Your task to perform on an android device: turn on the 24-hour format for clock Image 0: 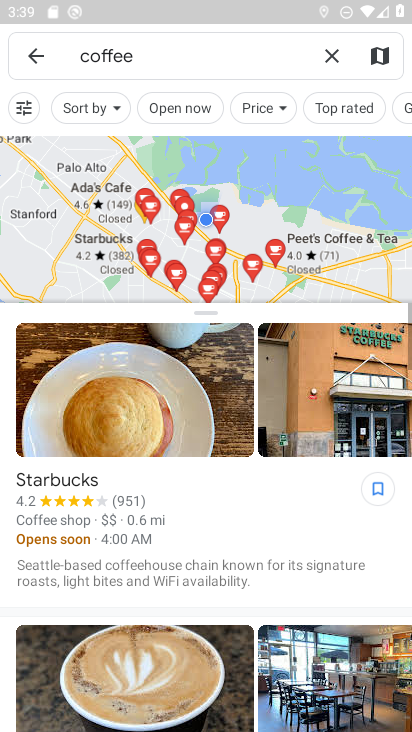
Step 0: press home button
Your task to perform on an android device: turn on the 24-hour format for clock Image 1: 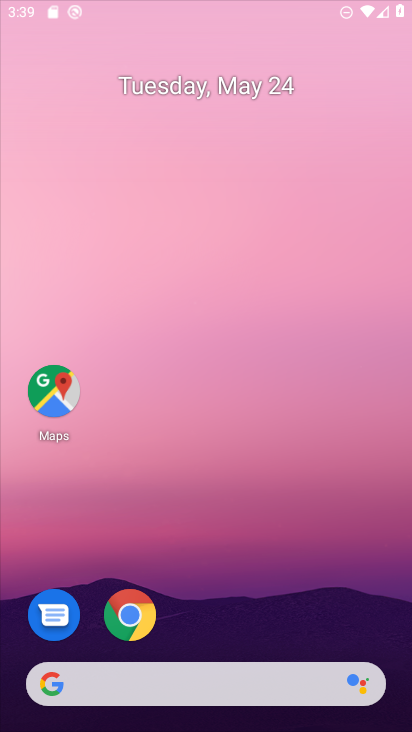
Step 1: drag from (279, 656) to (305, 89)
Your task to perform on an android device: turn on the 24-hour format for clock Image 2: 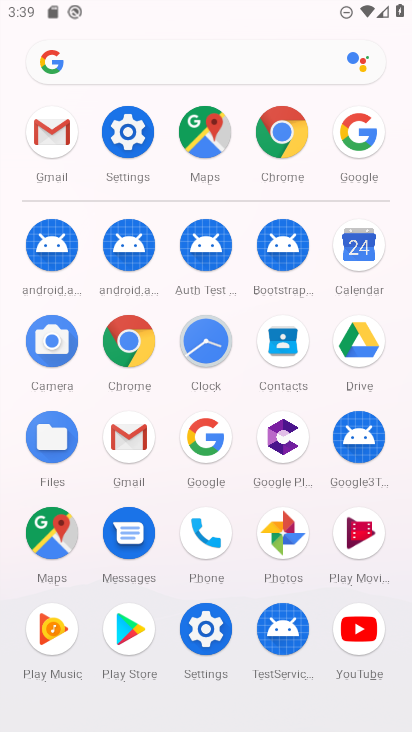
Step 2: click (211, 354)
Your task to perform on an android device: turn on the 24-hour format for clock Image 3: 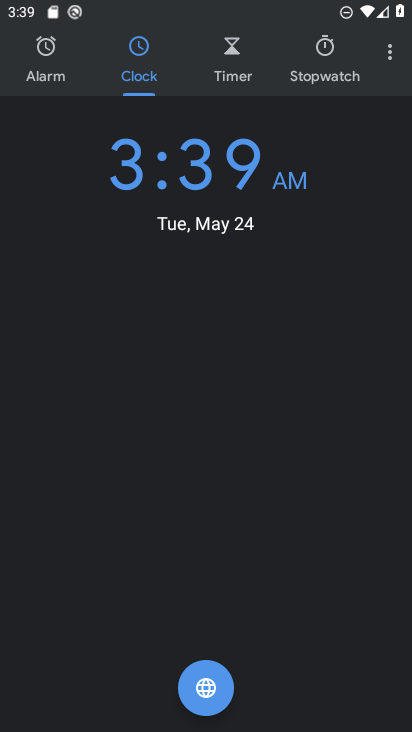
Step 3: click (389, 45)
Your task to perform on an android device: turn on the 24-hour format for clock Image 4: 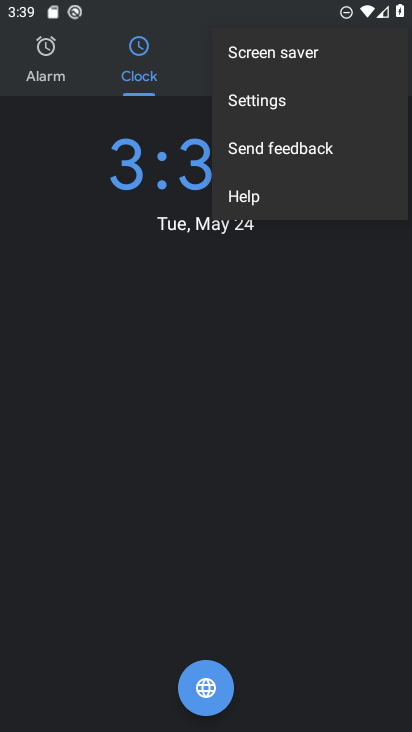
Step 4: click (292, 104)
Your task to perform on an android device: turn on the 24-hour format for clock Image 5: 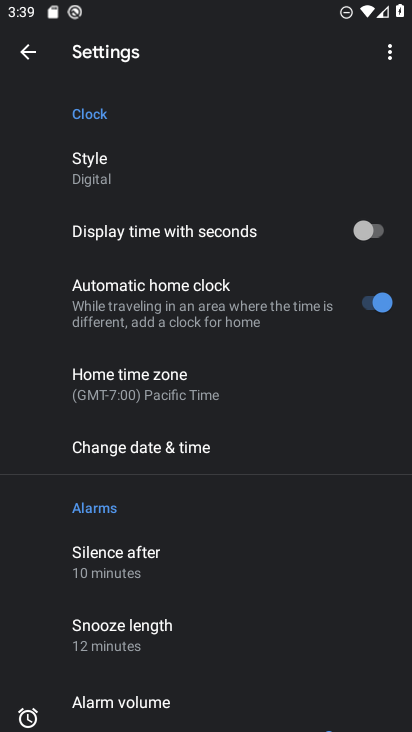
Step 5: drag from (235, 666) to (217, 453)
Your task to perform on an android device: turn on the 24-hour format for clock Image 6: 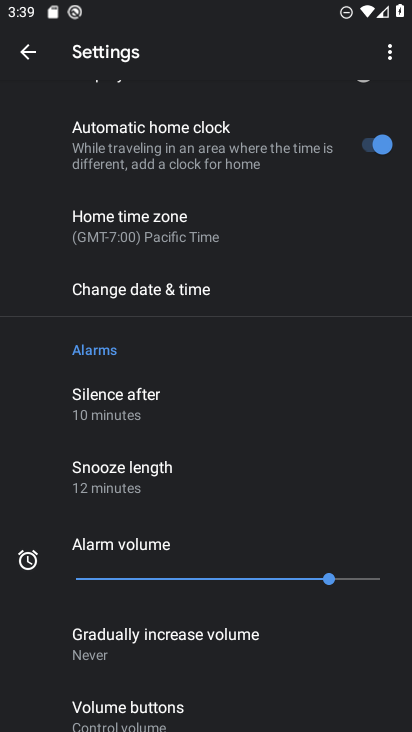
Step 6: click (201, 296)
Your task to perform on an android device: turn on the 24-hour format for clock Image 7: 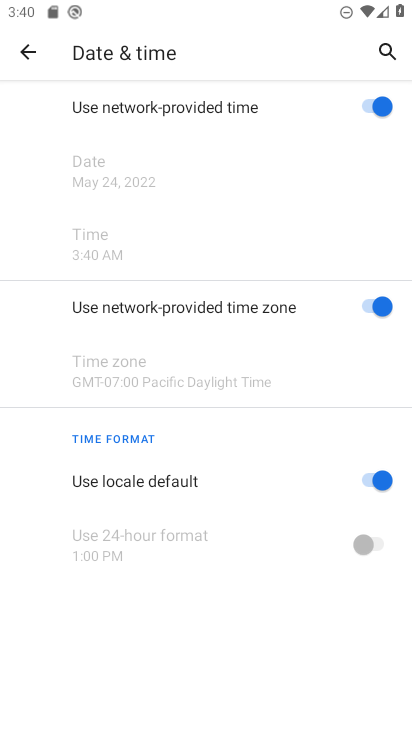
Step 7: press home button
Your task to perform on an android device: turn on the 24-hour format for clock Image 8: 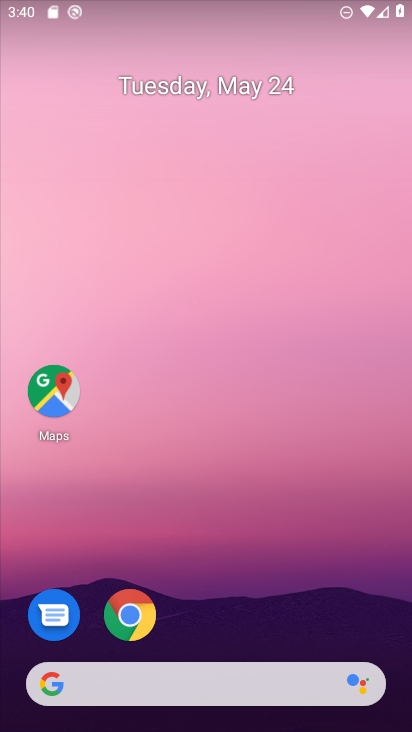
Step 8: drag from (293, 639) to (303, 133)
Your task to perform on an android device: turn on the 24-hour format for clock Image 9: 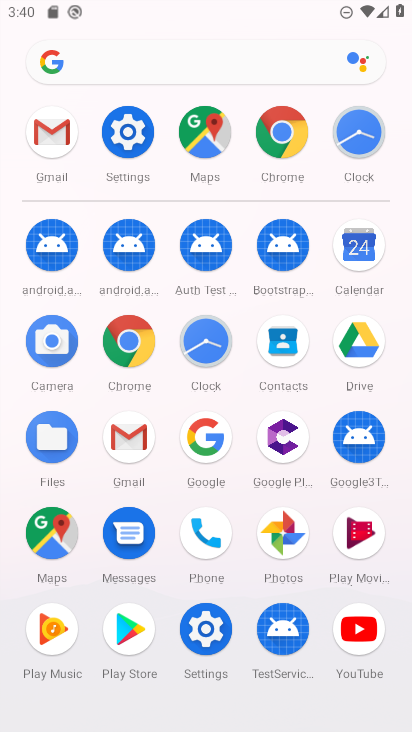
Step 9: click (370, 147)
Your task to perform on an android device: turn on the 24-hour format for clock Image 10: 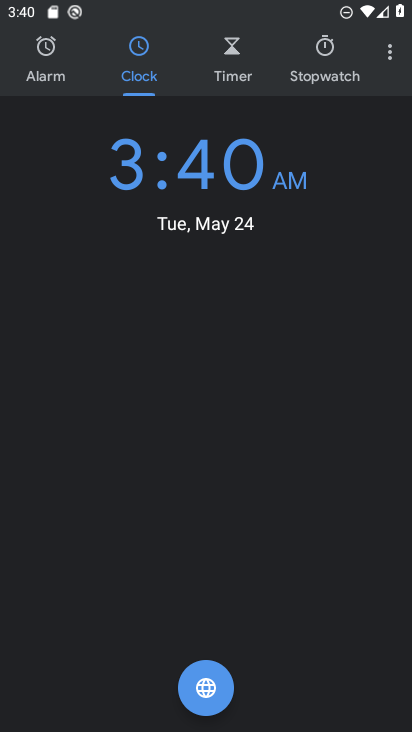
Step 10: click (393, 53)
Your task to perform on an android device: turn on the 24-hour format for clock Image 11: 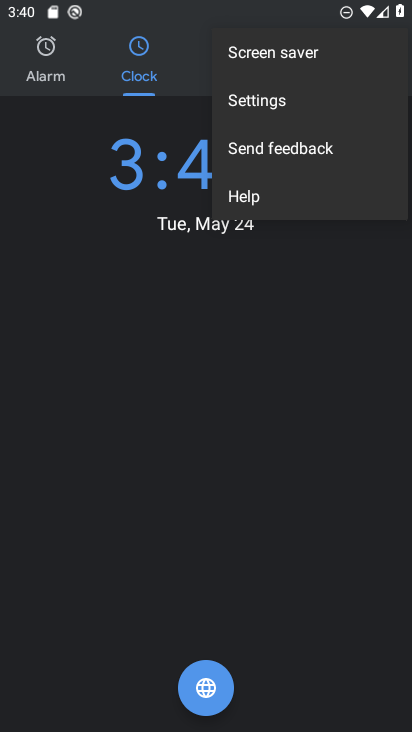
Step 11: click (309, 98)
Your task to perform on an android device: turn on the 24-hour format for clock Image 12: 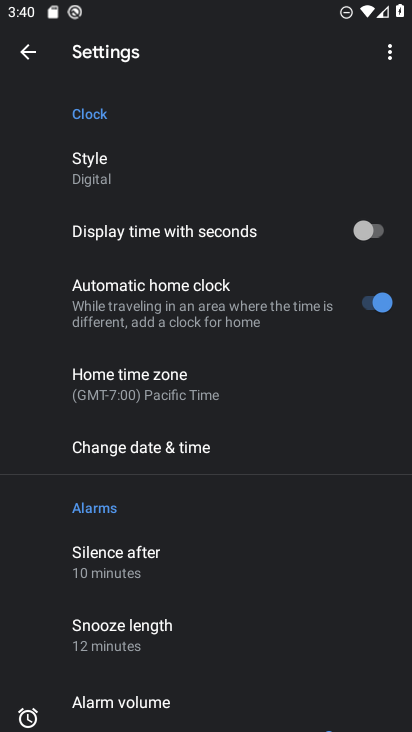
Step 12: click (228, 451)
Your task to perform on an android device: turn on the 24-hour format for clock Image 13: 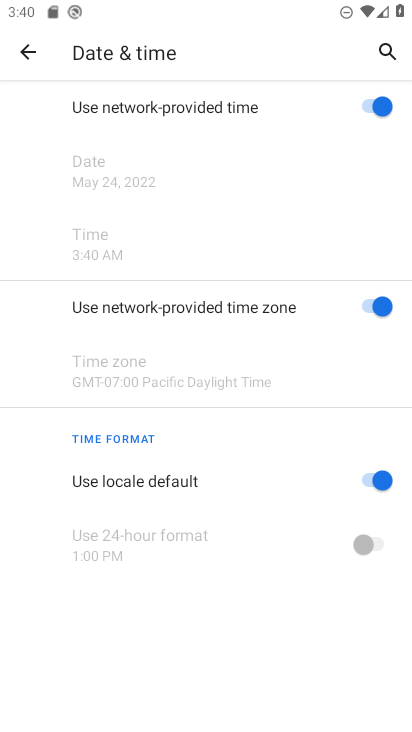
Step 13: task complete